Your task to perform on an android device: Open Maps and search for coffee Image 0: 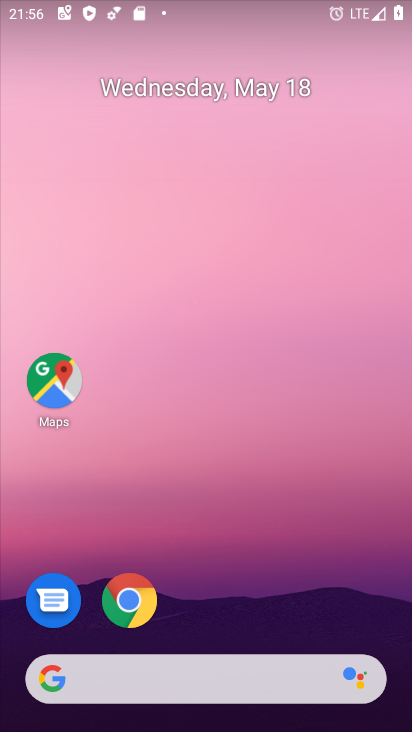
Step 0: click (45, 377)
Your task to perform on an android device: Open Maps and search for coffee Image 1: 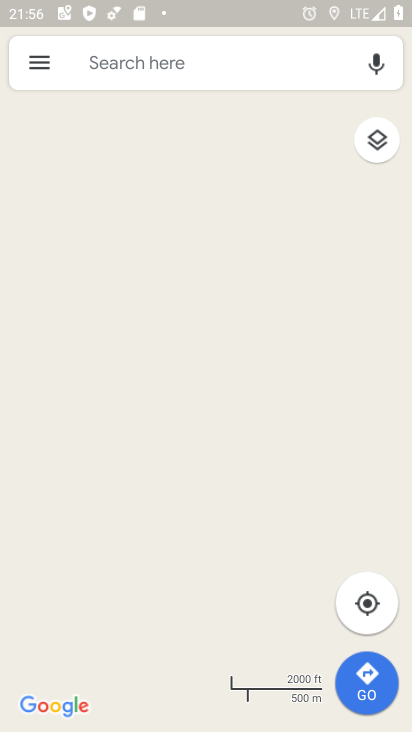
Step 1: click (163, 62)
Your task to perform on an android device: Open Maps and search for coffee Image 2: 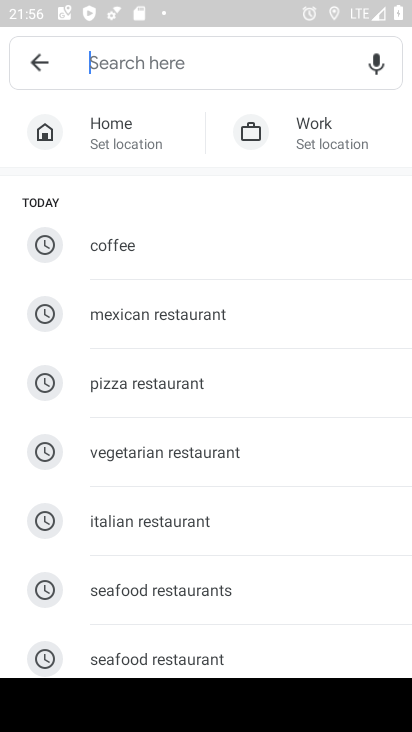
Step 2: click (139, 252)
Your task to perform on an android device: Open Maps and search for coffee Image 3: 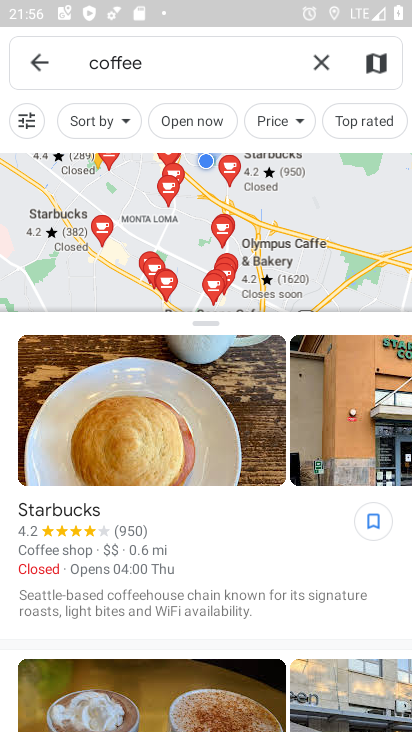
Step 3: task complete